Your task to perform on an android device: change notification settings in the gmail app Image 0: 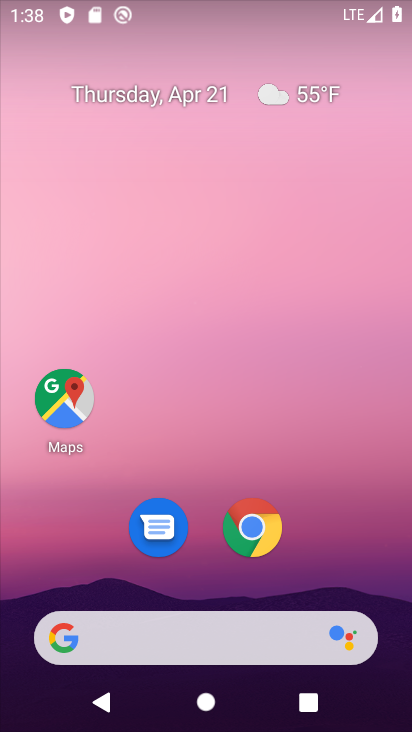
Step 0: drag from (352, 561) to (349, 108)
Your task to perform on an android device: change notification settings in the gmail app Image 1: 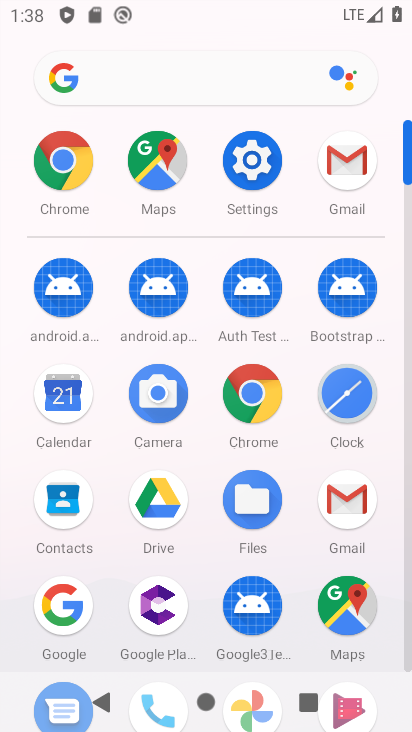
Step 1: click (355, 497)
Your task to perform on an android device: change notification settings in the gmail app Image 2: 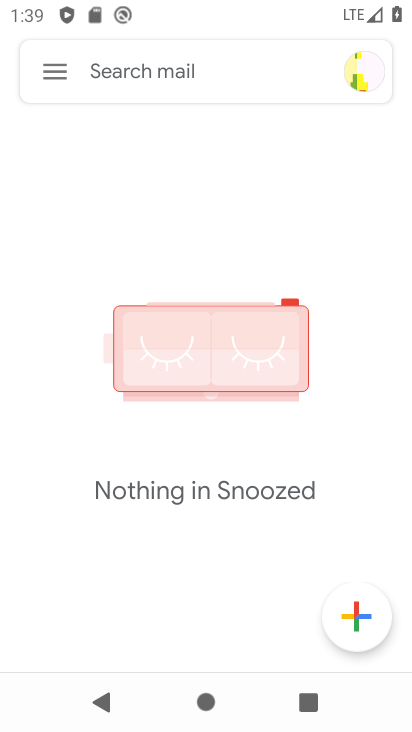
Step 2: click (51, 73)
Your task to perform on an android device: change notification settings in the gmail app Image 3: 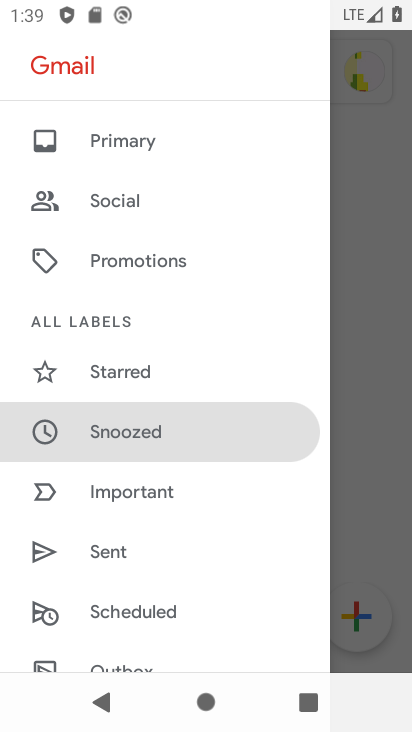
Step 3: drag from (266, 288) to (275, 394)
Your task to perform on an android device: change notification settings in the gmail app Image 4: 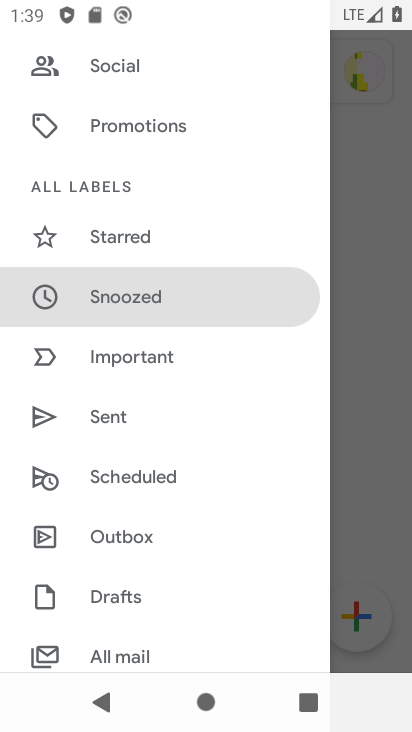
Step 4: drag from (267, 554) to (287, 425)
Your task to perform on an android device: change notification settings in the gmail app Image 5: 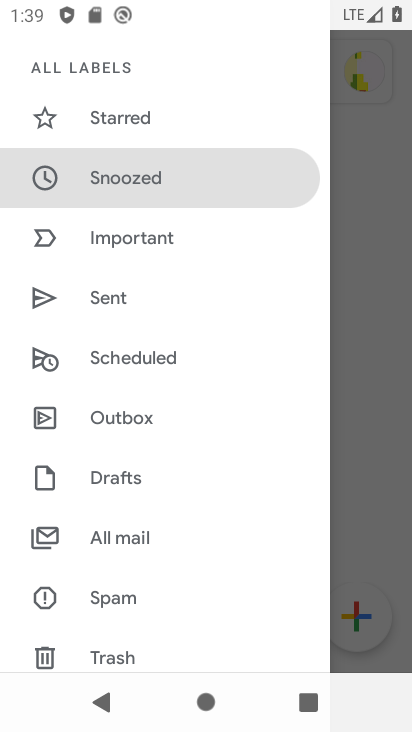
Step 5: drag from (262, 550) to (272, 374)
Your task to perform on an android device: change notification settings in the gmail app Image 6: 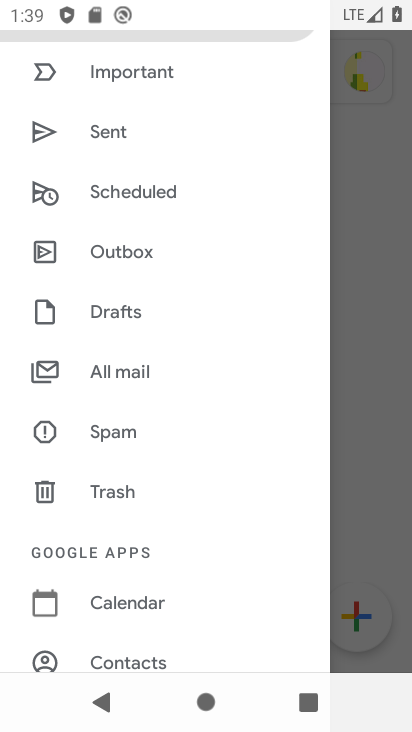
Step 6: drag from (256, 588) to (258, 468)
Your task to perform on an android device: change notification settings in the gmail app Image 7: 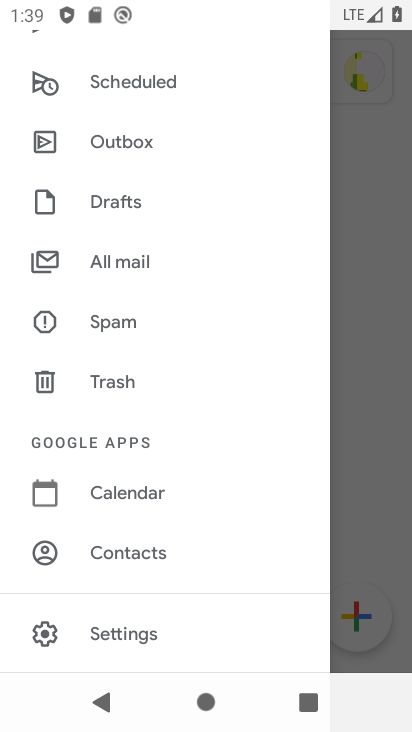
Step 7: drag from (250, 627) to (254, 430)
Your task to perform on an android device: change notification settings in the gmail app Image 8: 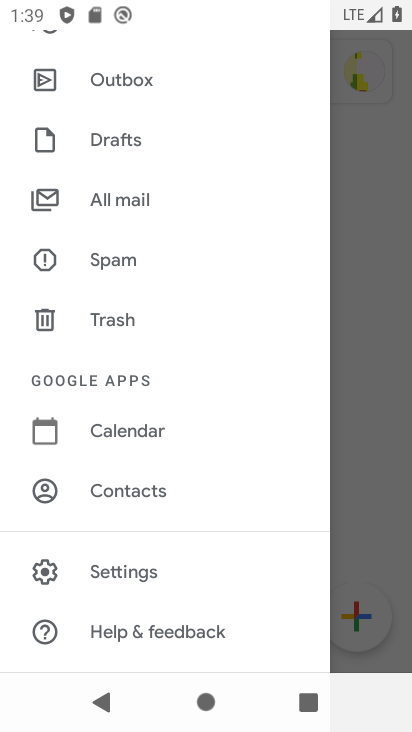
Step 8: drag from (243, 556) to (275, 386)
Your task to perform on an android device: change notification settings in the gmail app Image 9: 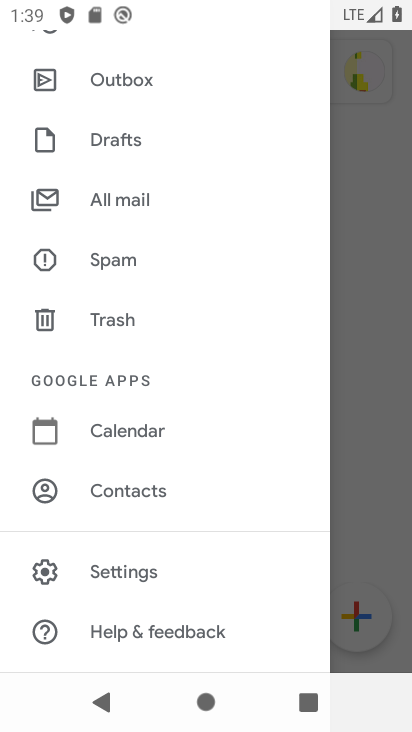
Step 9: click (167, 577)
Your task to perform on an android device: change notification settings in the gmail app Image 10: 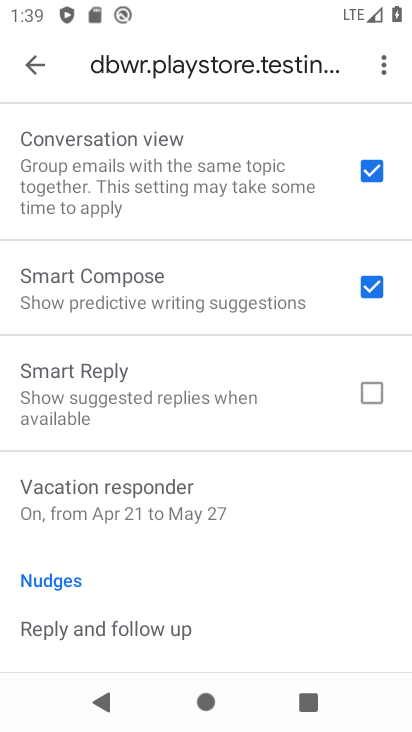
Step 10: drag from (308, 253) to (306, 425)
Your task to perform on an android device: change notification settings in the gmail app Image 11: 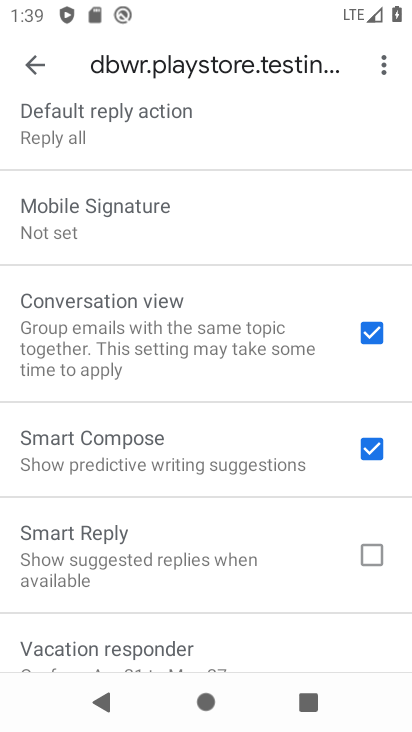
Step 11: drag from (311, 214) to (308, 442)
Your task to perform on an android device: change notification settings in the gmail app Image 12: 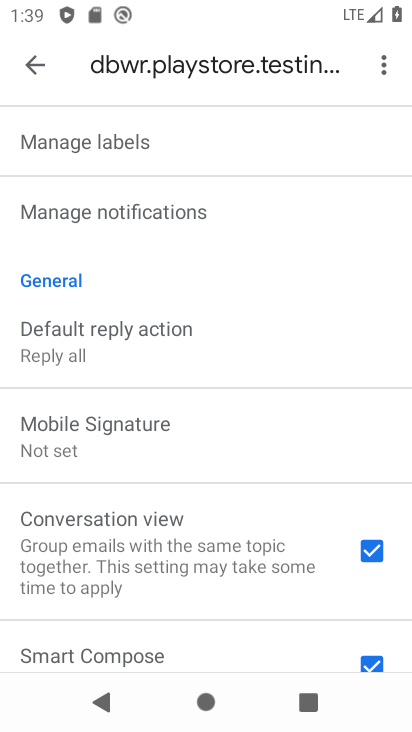
Step 12: drag from (305, 219) to (299, 401)
Your task to perform on an android device: change notification settings in the gmail app Image 13: 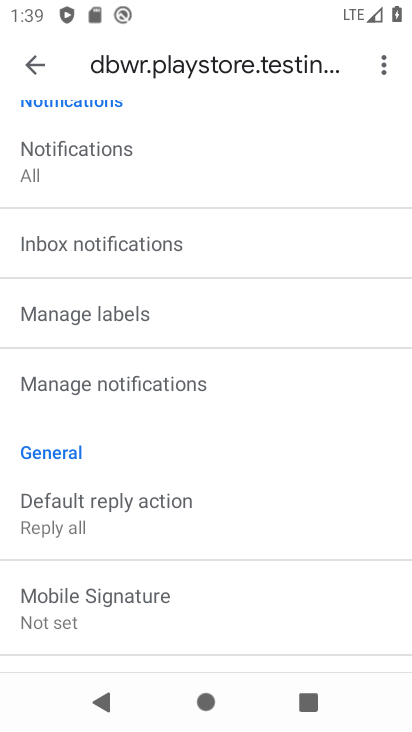
Step 13: drag from (291, 165) to (292, 412)
Your task to perform on an android device: change notification settings in the gmail app Image 14: 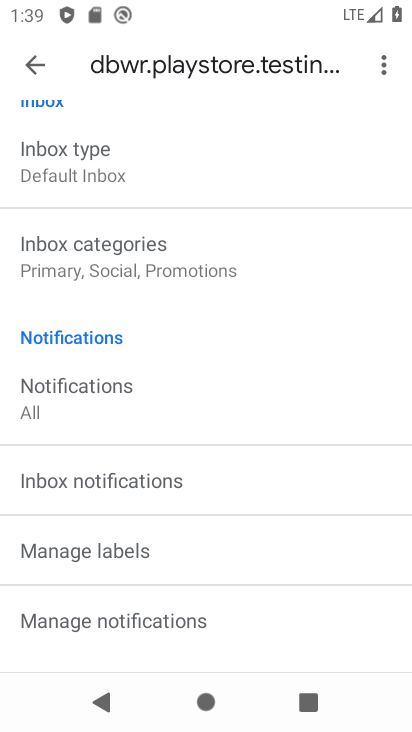
Step 14: drag from (293, 178) to (295, 389)
Your task to perform on an android device: change notification settings in the gmail app Image 15: 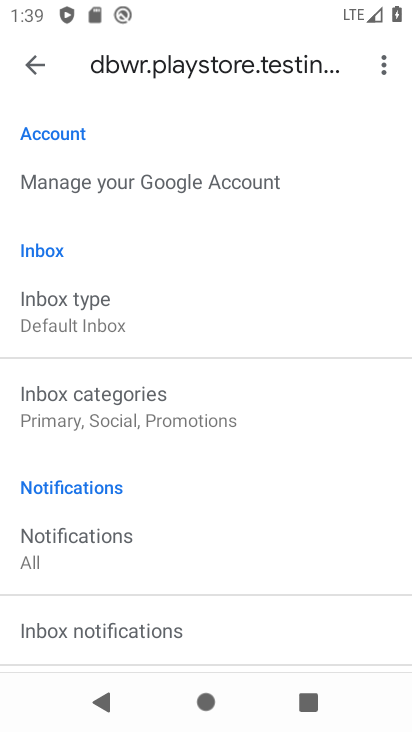
Step 15: drag from (317, 183) to (312, 407)
Your task to perform on an android device: change notification settings in the gmail app Image 16: 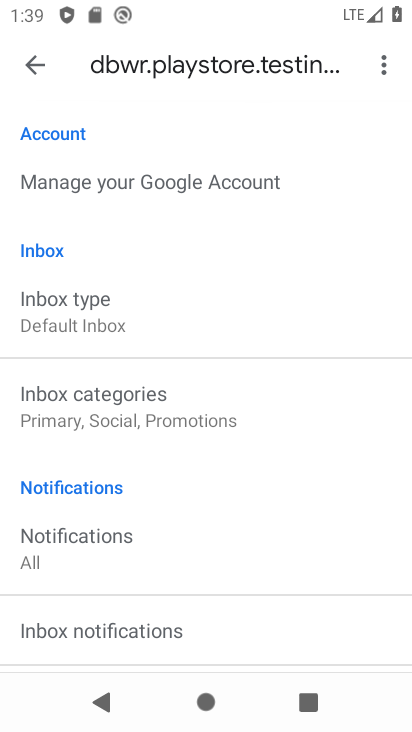
Step 16: drag from (292, 475) to (316, 319)
Your task to perform on an android device: change notification settings in the gmail app Image 17: 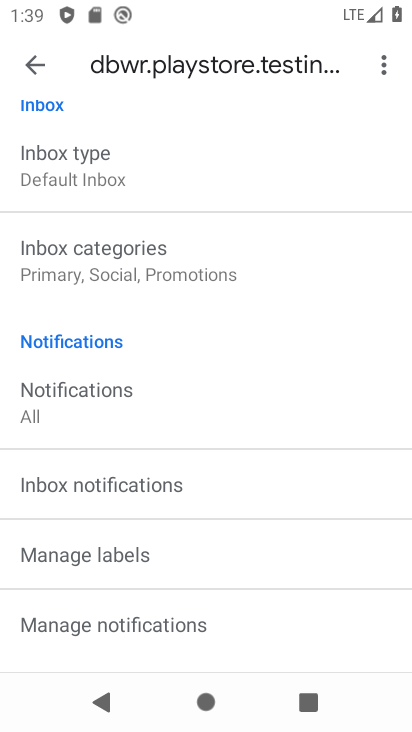
Step 17: drag from (292, 537) to (306, 370)
Your task to perform on an android device: change notification settings in the gmail app Image 18: 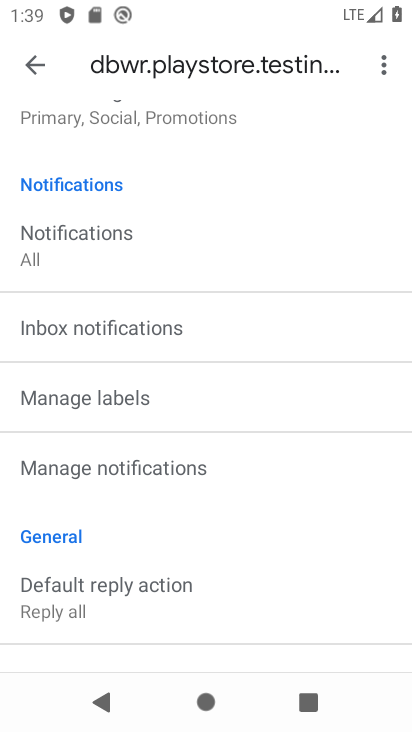
Step 18: drag from (275, 558) to (287, 391)
Your task to perform on an android device: change notification settings in the gmail app Image 19: 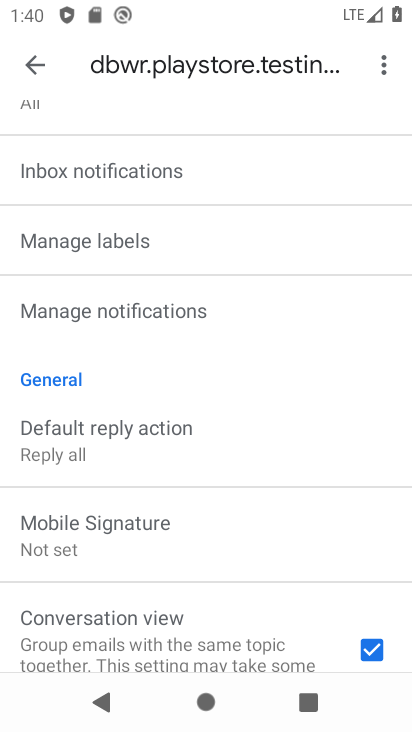
Step 19: drag from (286, 246) to (285, 401)
Your task to perform on an android device: change notification settings in the gmail app Image 20: 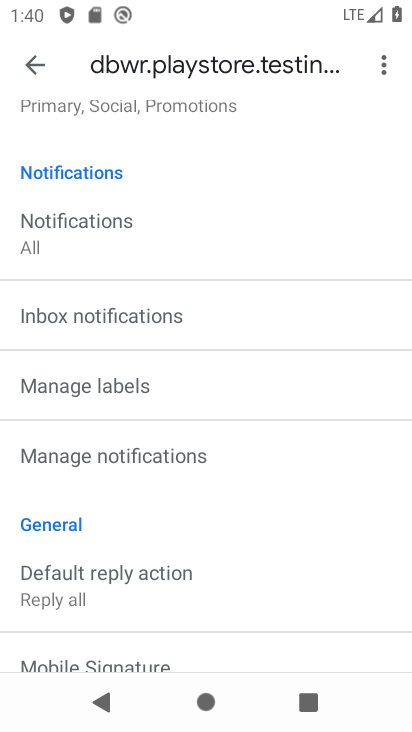
Step 20: click (109, 226)
Your task to perform on an android device: change notification settings in the gmail app Image 21: 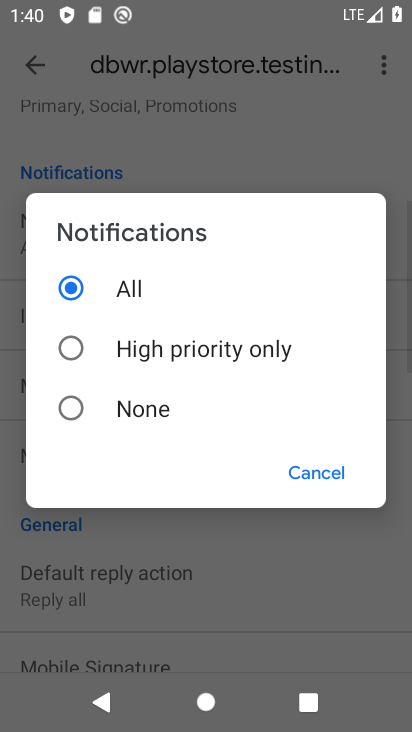
Step 21: click (160, 343)
Your task to perform on an android device: change notification settings in the gmail app Image 22: 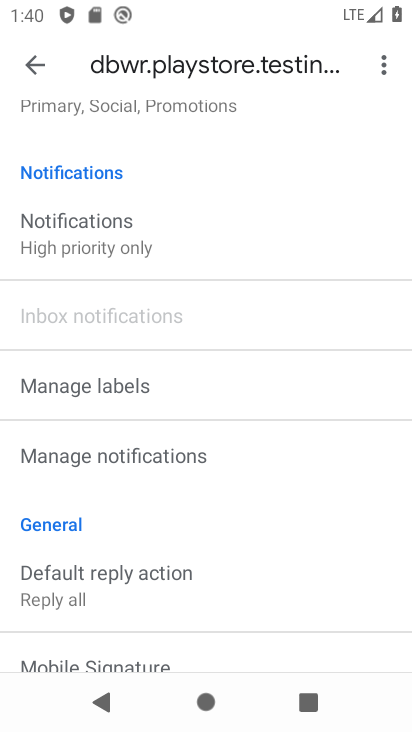
Step 22: task complete